Your task to perform on an android device: Open the map Image 0: 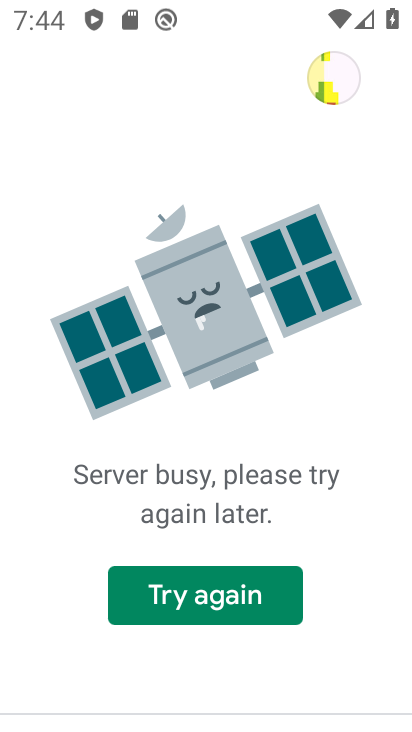
Step 0: press home button
Your task to perform on an android device: Open the map Image 1: 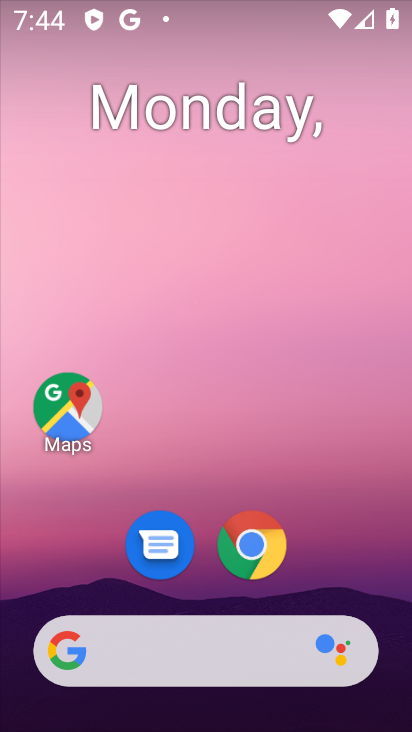
Step 1: click (73, 406)
Your task to perform on an android device: Open the map Image 2: 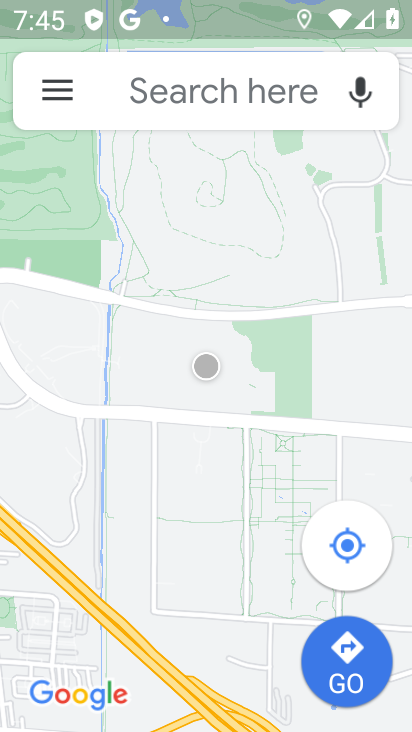
Step 2: task complete